Your task to perform on an android device: turn off translation in the chrome app Image 0: 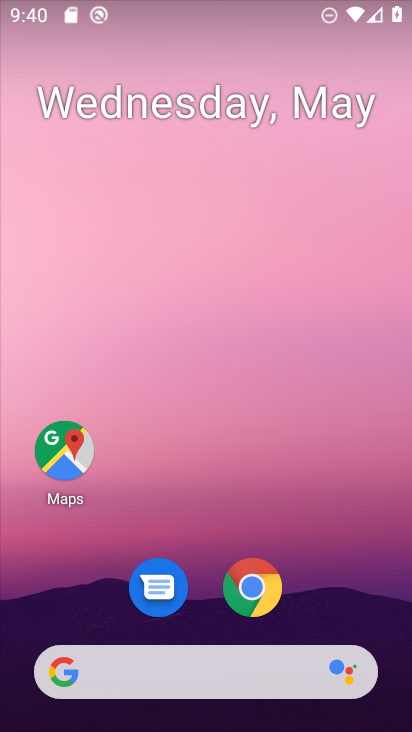
Step 0: click (249, 587)
Your task to perform on an android device: turn off translation in the chrome app Image 1: 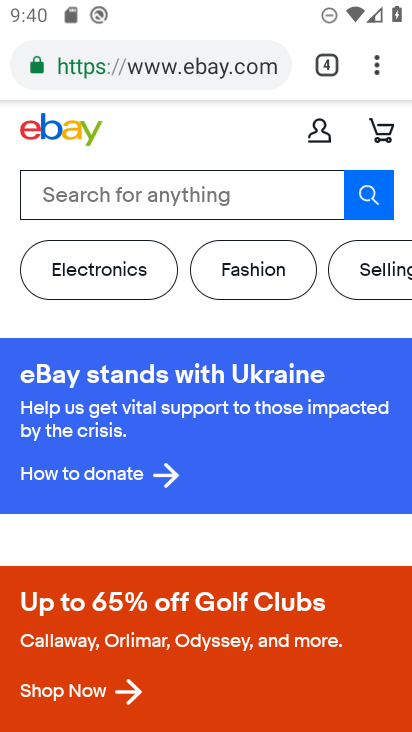
Step 1: click (375, 69)
Your task to perform on an android device: turn off translation in the chrome app Image 2: 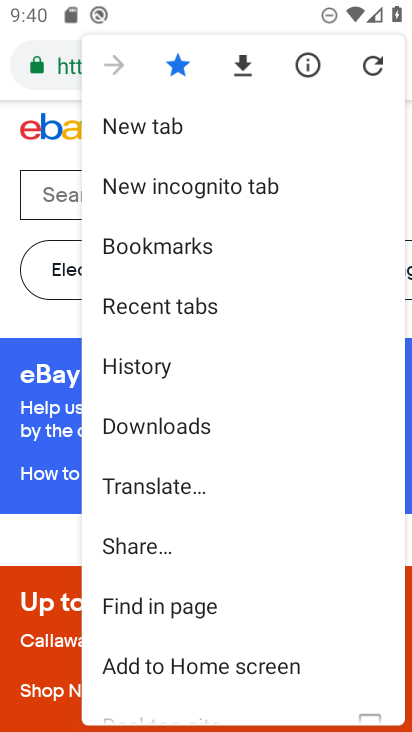
Step 2: drag from (178, 638) to (175, 334)
Your task to perform on an android device: turn off translation in the chrome app Image 3: 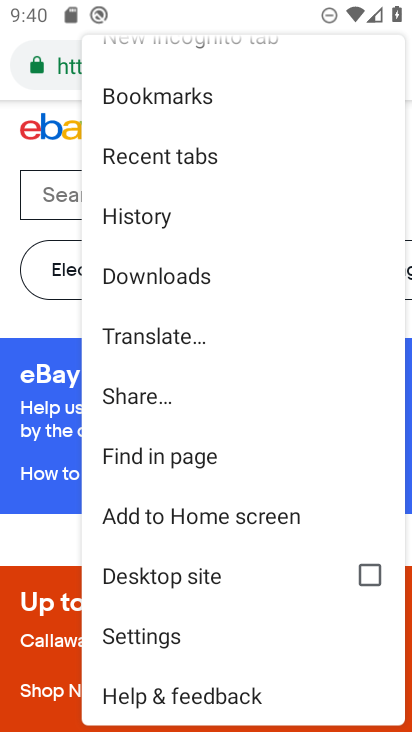
Step 3: click (172, 637)
Your task to perform on an android device: turn off translation in the chrome app Image 4: 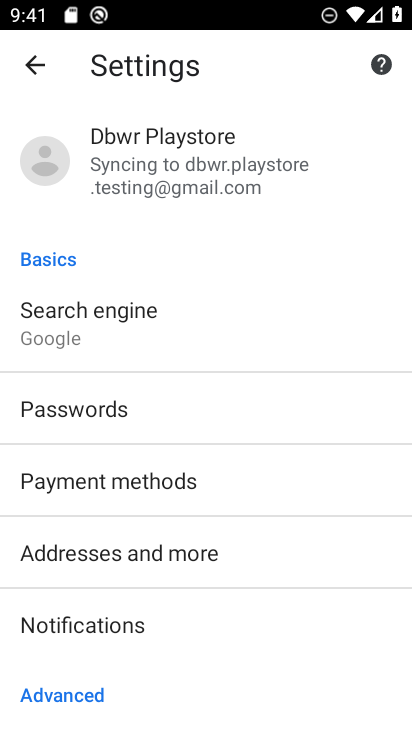
Step 4: drag from (177, 641) to (177, 328)
Your task to perform on an android device: turn off translation in the chrome app Image 5: 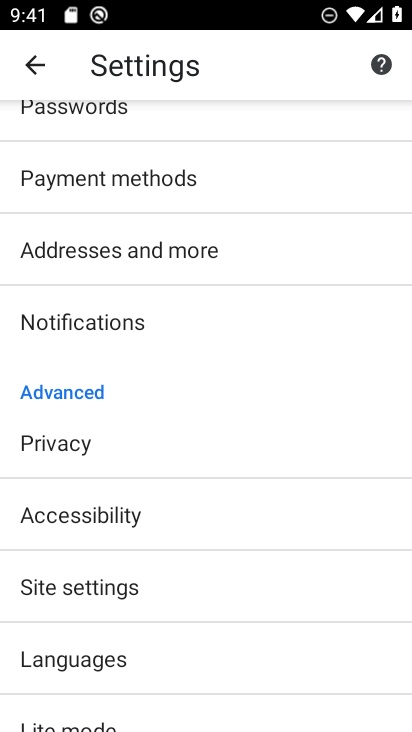
Step 5: click (110, 653)
Your task to perform on an android device: turn off translation in the chrome app Image 6: 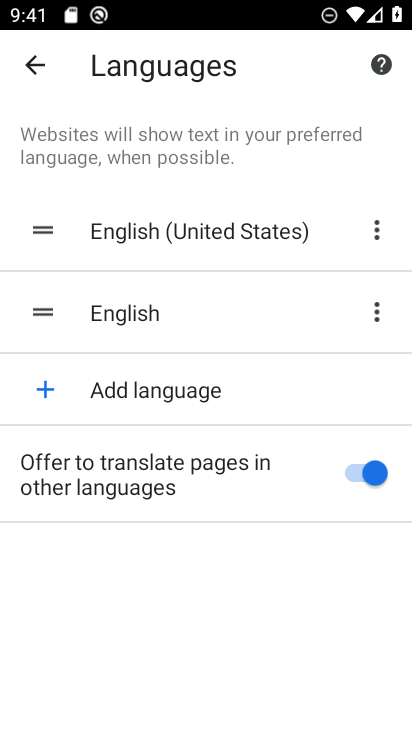
Step 6: click (357, 474)
Your task to perform on an android device: turn off translation in the chrome app Image 7: 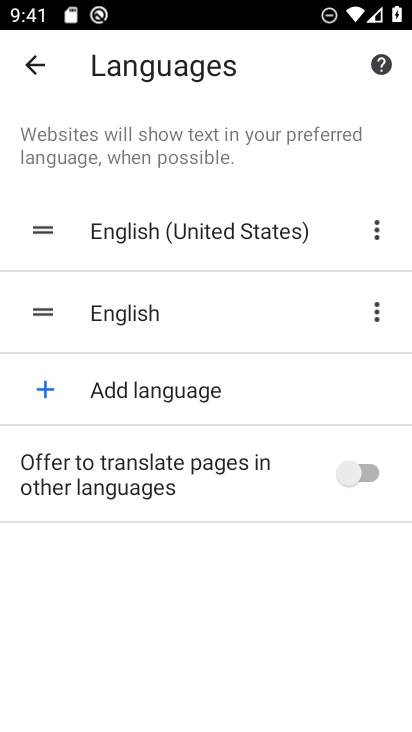
Step 7: task complete